Your task to perform on an android device: set the stopwatch Image 0: 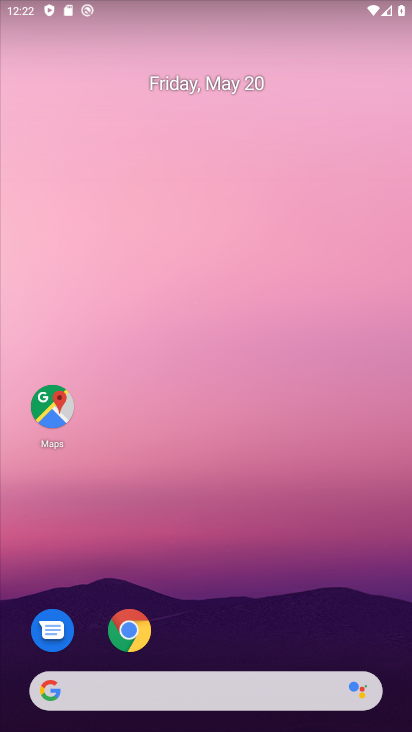
Step 0: drag from (234, 605) to (237, 117)
Your task to perform on an android device: set the stopwatch Image 1: 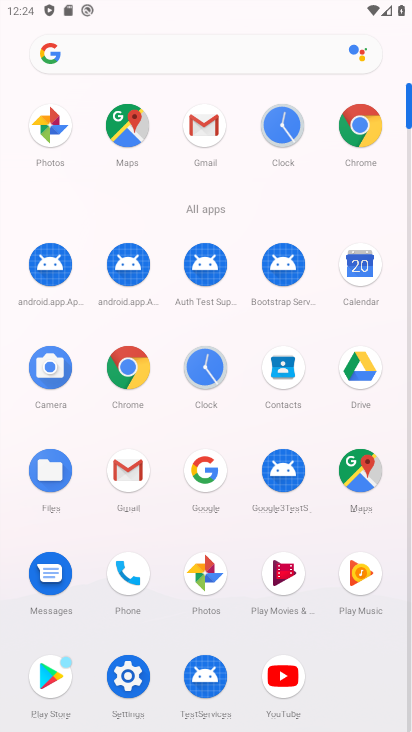
Step 1: click (277, 125)
Your task to perform on an android device: set the stopwatch Image 2: 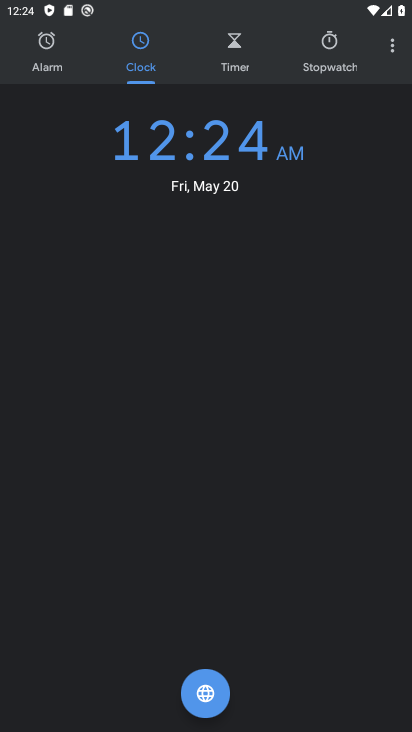
Step 2: click (333, 38)
Your task to perform on an android device: set the stopwatch Image 3: 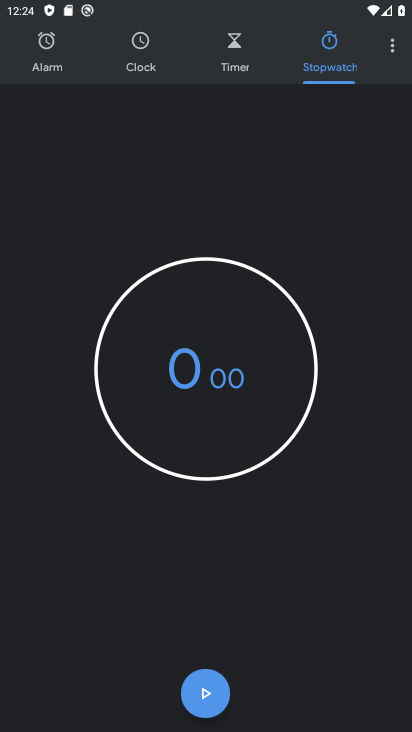
Step 3: click (197, 694)
Your task to perform on an android device: set the stopwatch Image 4: 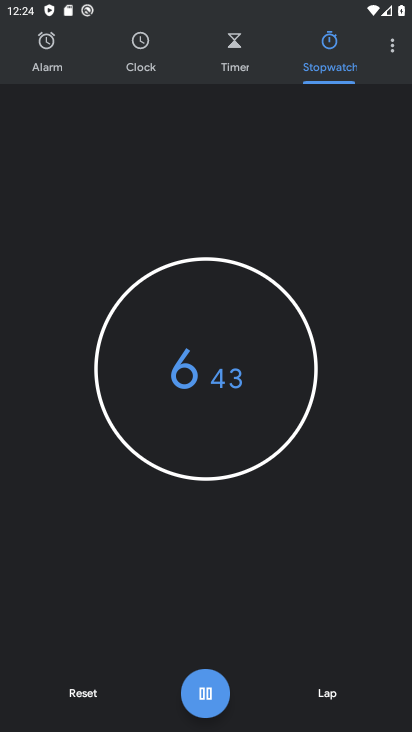
Step 4: click (206, 693)
Your task to perform on an android device: set the stopwatch Image 5: 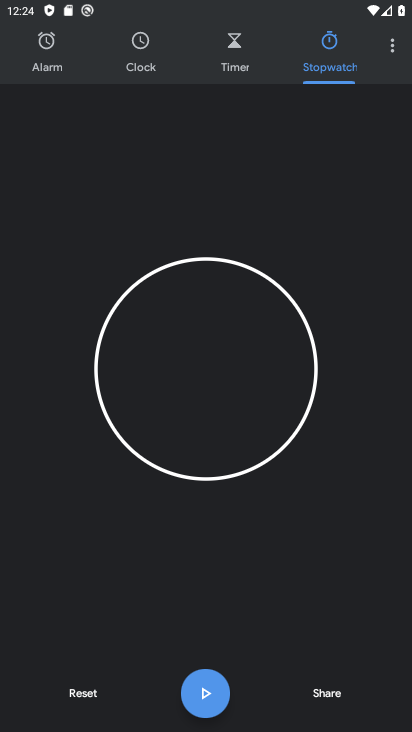
Step 5: task complete